Your task to perform on an android device: toggle show notifications on the lock screen Image 0: 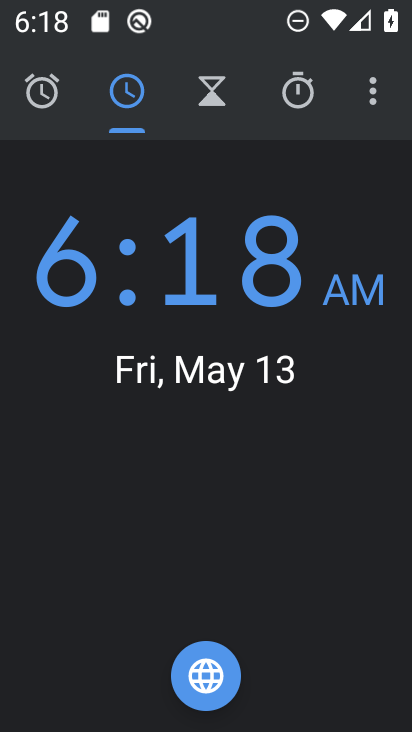
Step 0: press home button
Your task to perform on an android device: toggle show notifications on the lock screen Image 1: 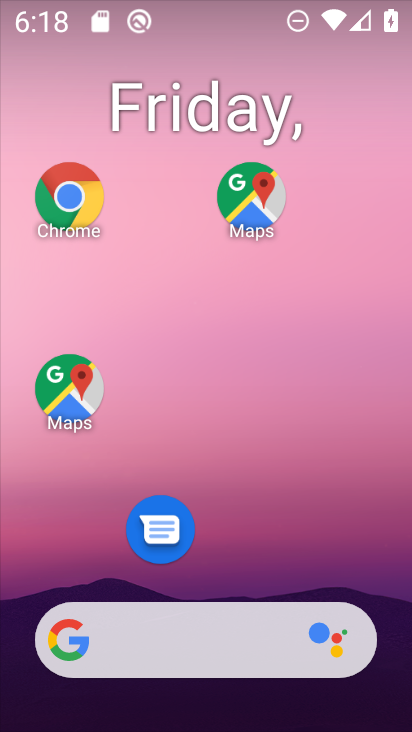
Step 1: drag from (262, 555) to (219, 128)
Your task to perform on an android device: toggle show notifications on the lock screen Image 2: 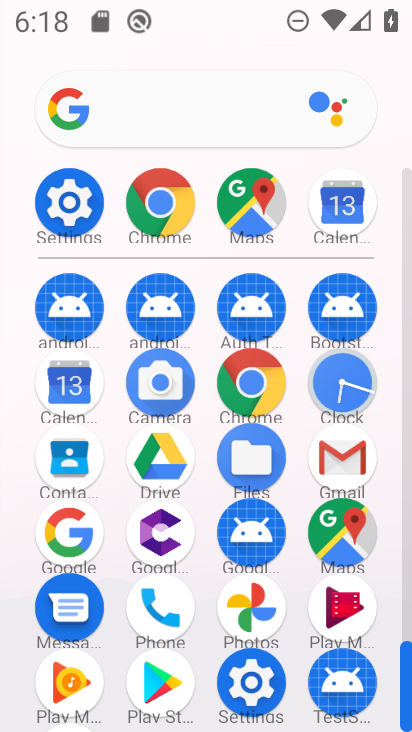
Step 2: click (66, 210)
Your task to perform on an android device: toggle show notifications on the lock screen Image 3: 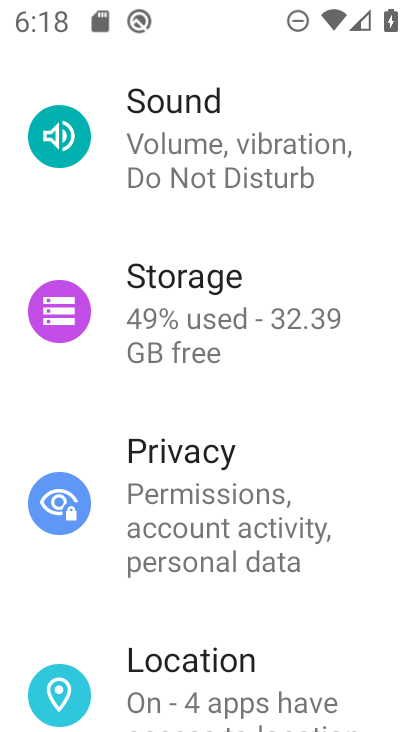
Step 3: drag from (253, 604) to (245, 263)
Your task to perform on an android device: toggle show notifications on the lock screen Image 4: 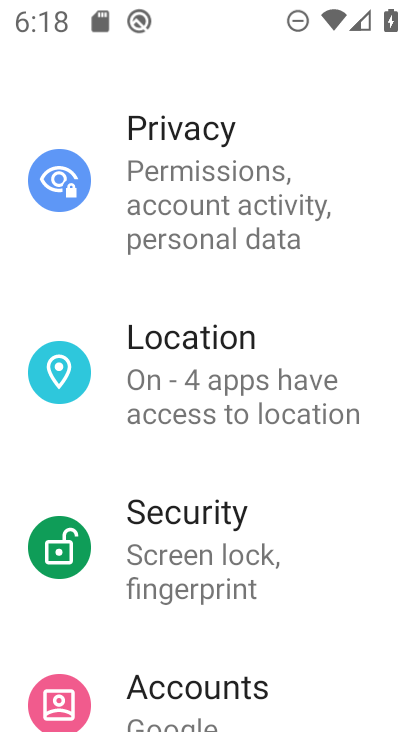
Step 4: drag from (244, 258) to (213, 519)
Your task to perform on an android device: toggle show notifications on the lock screen Image 5: 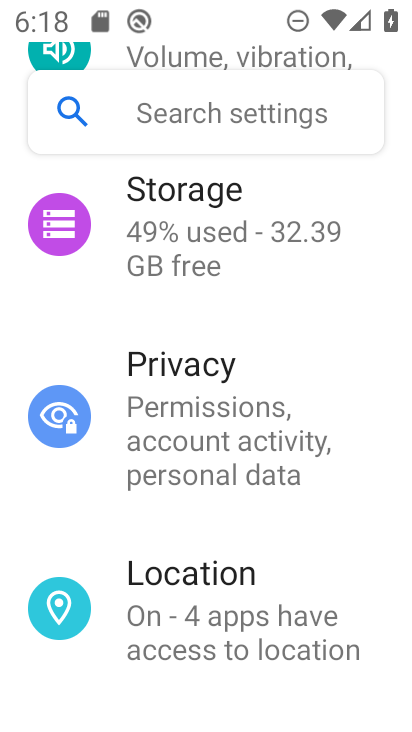
Step 5: drag from (199, 243) to (185, 620)
Your task to perform on an android device: toggle show notifications on the lock screen Image 6: 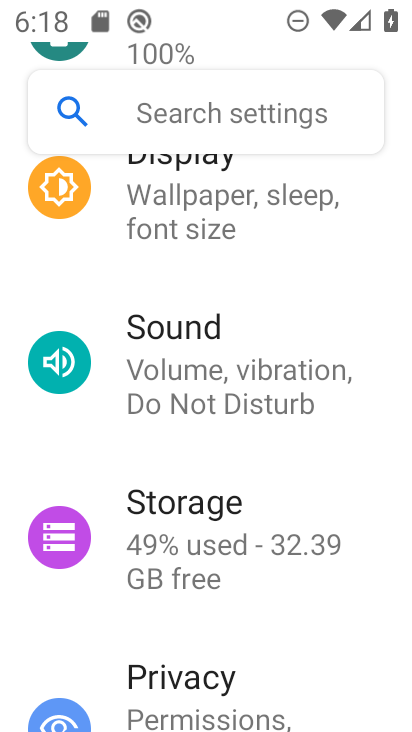
Step 6: drag from (192, 321) to (178, 578)
Your task to perform on an android device: toggle show notifications on the lock screen Image 7: 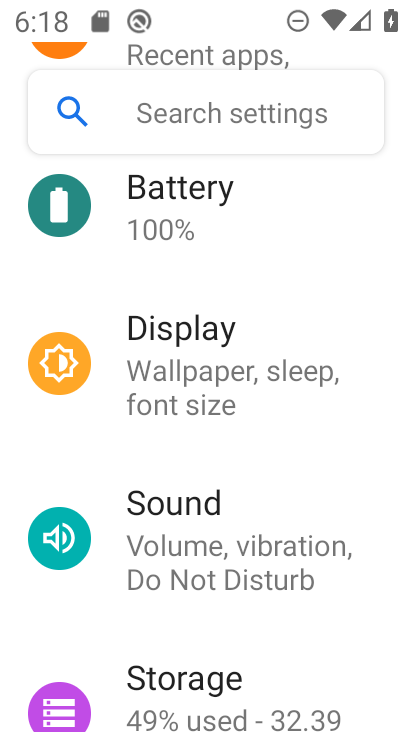
Step 7: drag from (216, 326) to (173, 595)
Your task to perform on an android device: toggle show notifications on the lock screen Image 8: 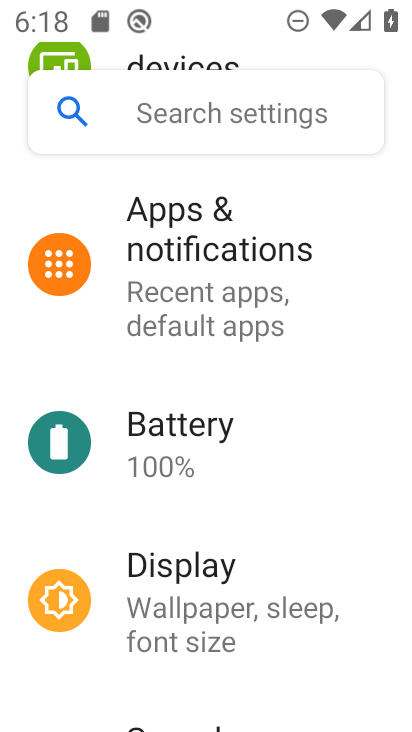
Step 8: click (184, 273)
Your task to perform on an android device: toggle show notifications on the lock screen Image 9: 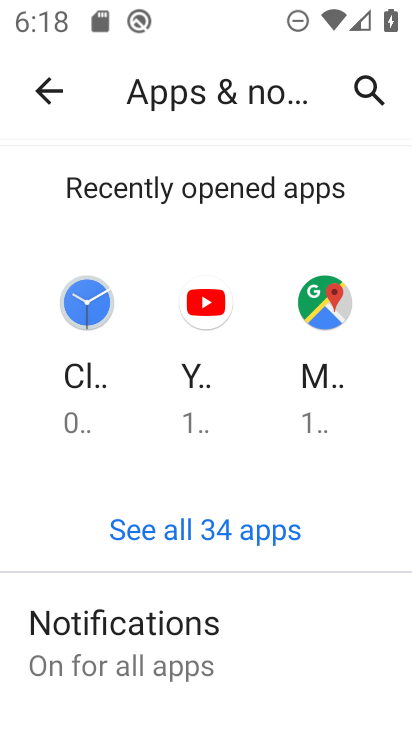
Step 9: click (174, 615)
Your task to perform on an android device: toggle show notifications on the lock screen Image 10: 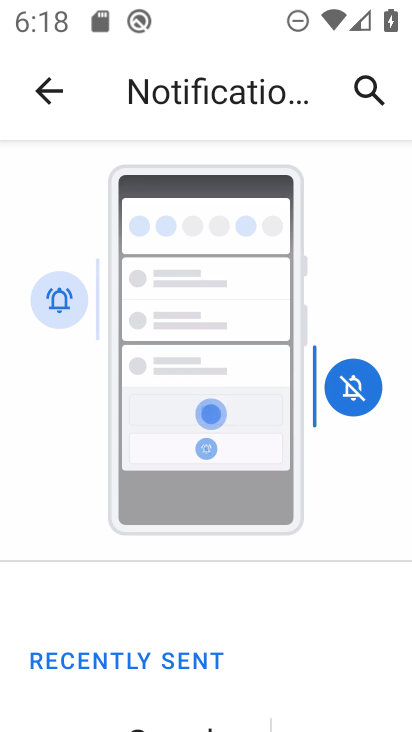
Step 10: drag from (234, 663) to (277, 330)
Your task to perform on an android device: toggle show notifications on the lock screen Image 11: 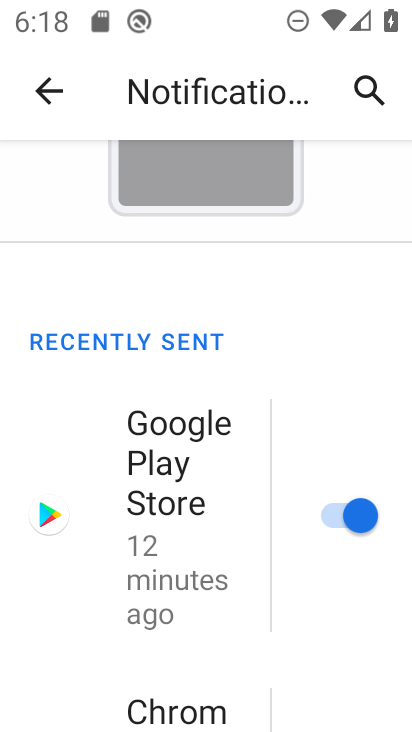
Step 11: drag from (214, 584) to (234, 234)
Your task to perform on an android device: toggle show notifications on the lock screen Image 12: 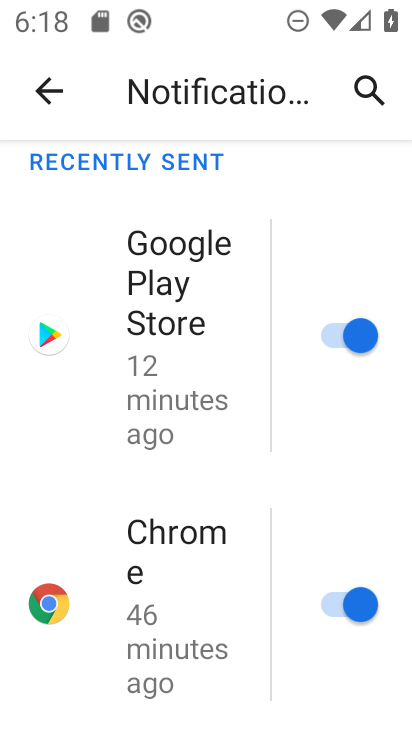
Step 12: drag from (195, 628) to (213, 219)
Your task to perform on an android device: toggle show notifications on the lock screen Image 13: 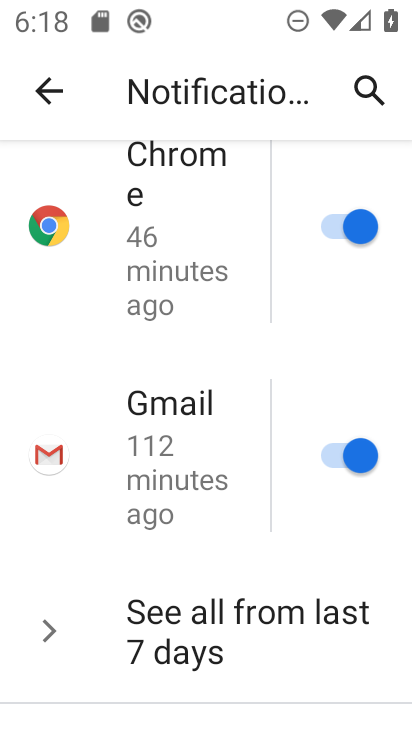
Step 13: drag from (199, 603) to (212, 185)
Your task to perform on an android device: toggle show notifications on the lock screen Image 14: 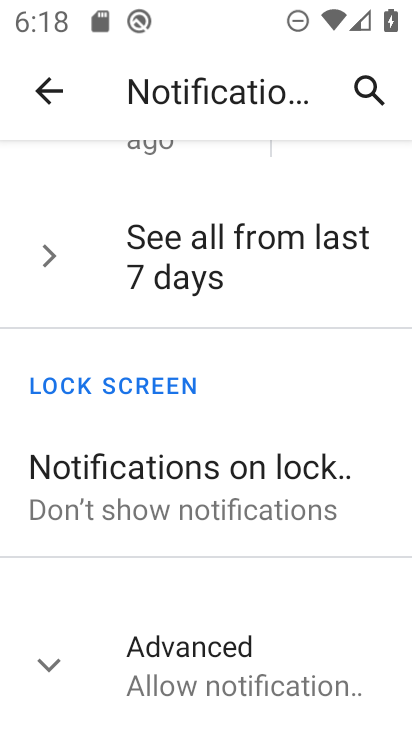
Step 14: click (200, 493)
Your task to perform on an android device: toggle show notifications on the lock screen Image 15: 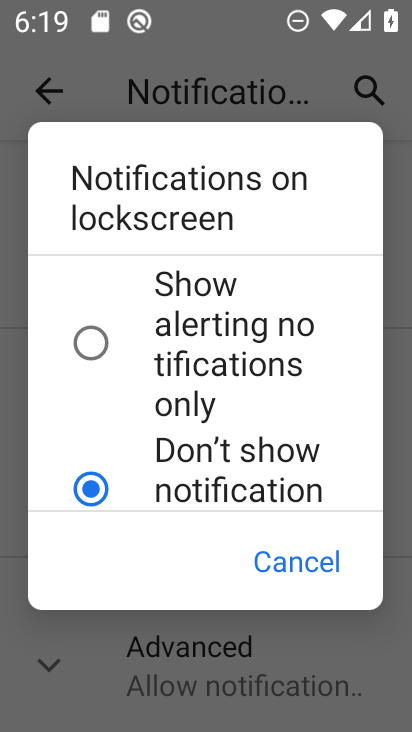
Step 15: click (100, 347)
Your task to perform on an android device: toggle show notifications on the lock screen Image 16: 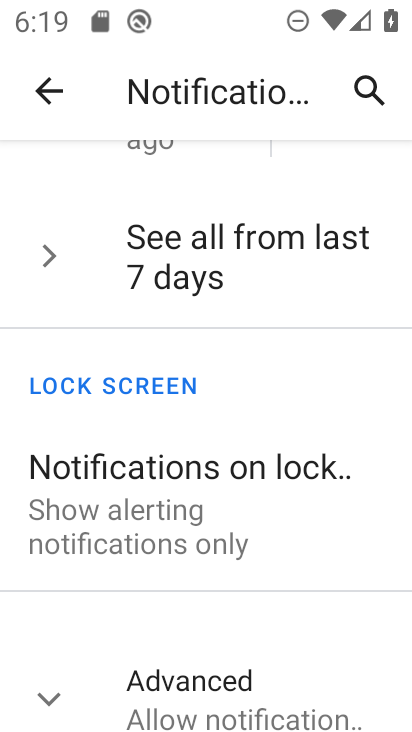
Step 16: task complete